Your task to perform on an android device: check google app version Image 0: 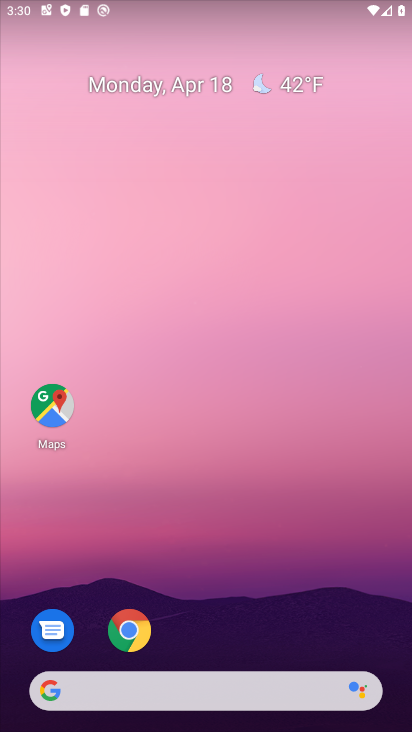
Step 0: drag from (288, 552) to (256, 29)
Your task to perform on an android device: check google app version Image 1: 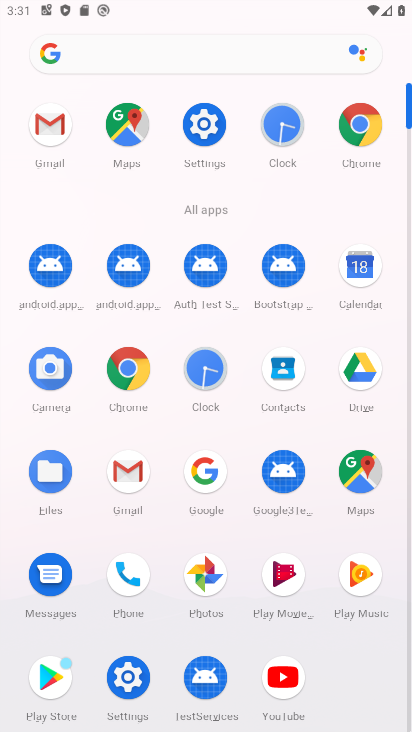
Step 1: drag from (241, 454) to (228, 210)
Your task to perform on an android device: check google app version Image 2: 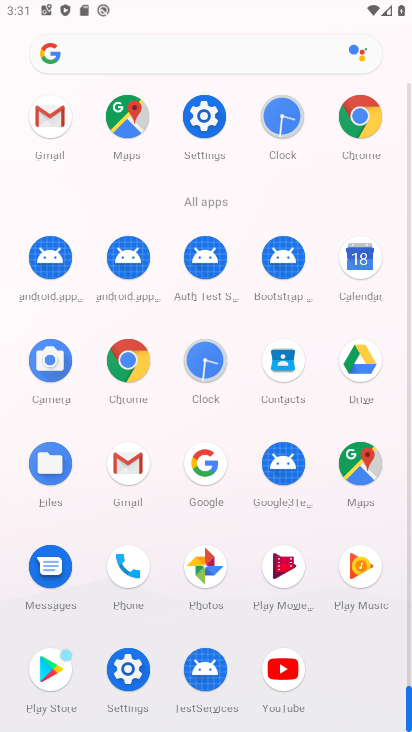
Step 2: click (203, 468)
Your task to perform on an android device: check google app version Image 3: 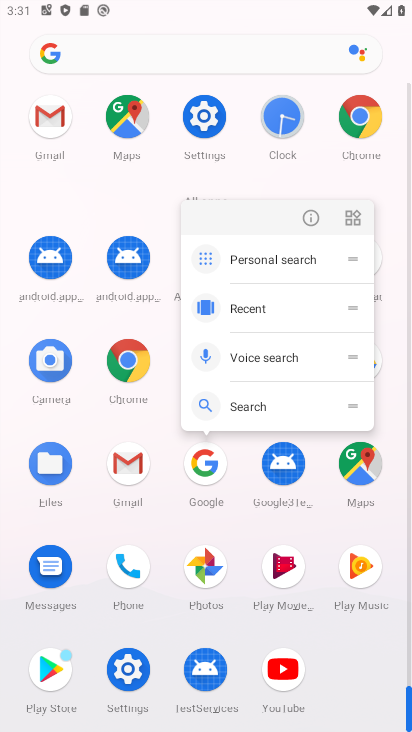
Step 3: click (305, 222)
Your task to perform on an android device: check google app version Image 4: 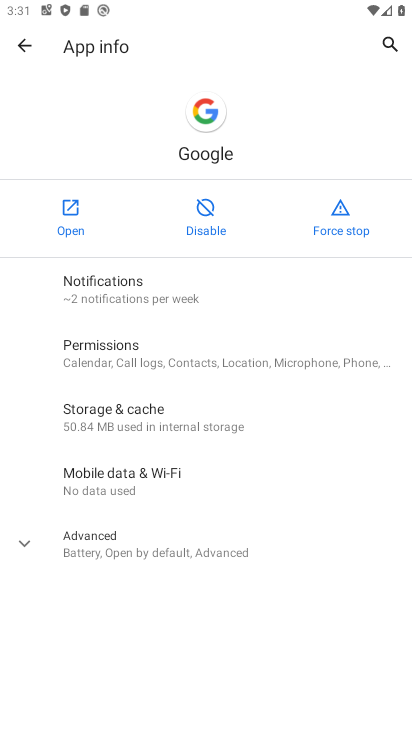
Step 4: drag from (210, 596) to (170, 283)
Your task to perform on an android device: check google app version Image 5: 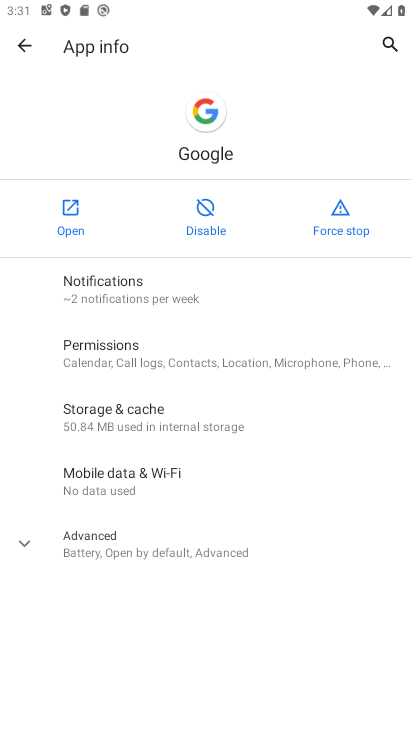
Step 5: click (139, 550)
Your task to perform on an android device: check google app version Image 6: 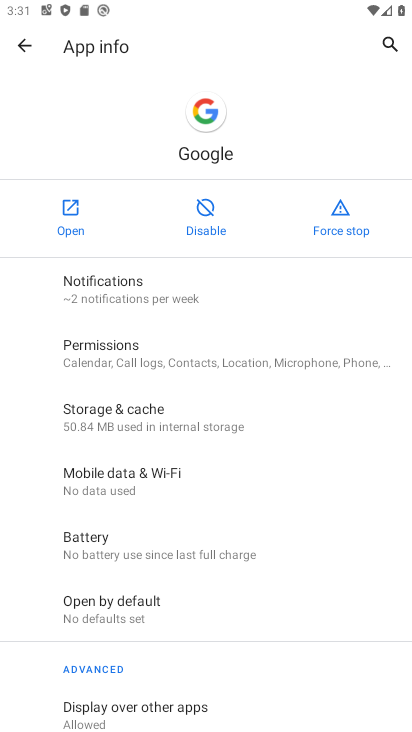
Step 6: task complete